Your task to perform on an android device: allow notifications from all sites in the chrome app Image 0: 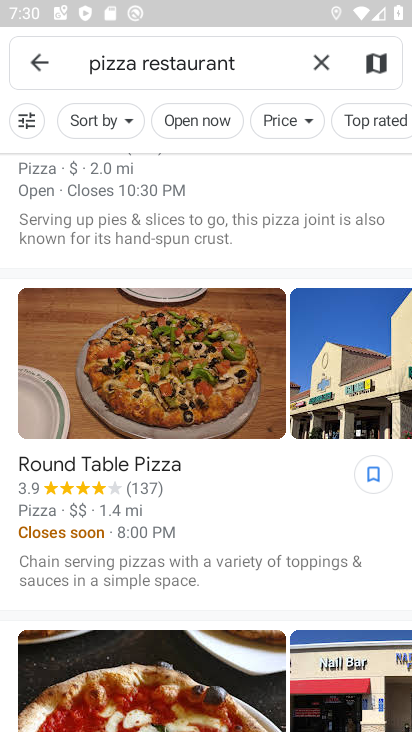
Step 0: press home button
Your task to perform on an android device: allow notifications from all sites in the chrome app Image 1: 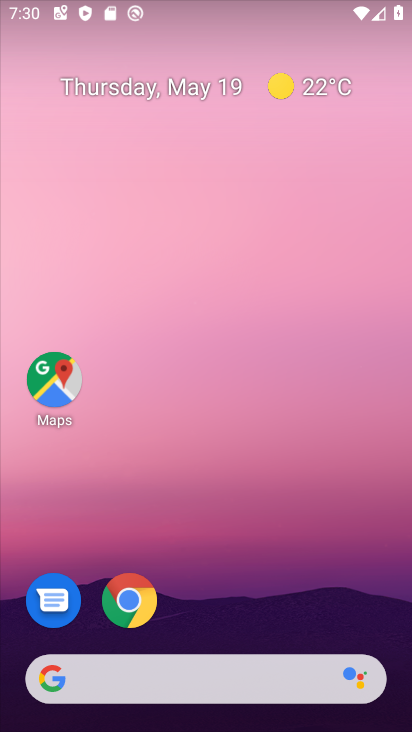
Step 1: drag from (393, 595) to (326, 146)
Your task to perform on an android device: allow notifications from all sites in the chrome app Image 2: 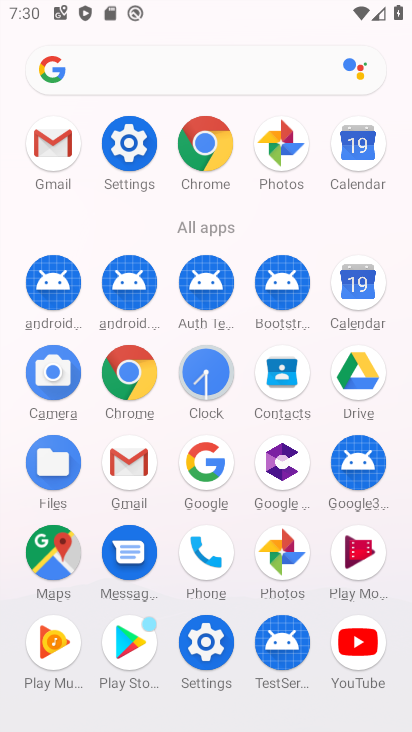
Step 2: click (138, 138)
Your task to perform on an android device: allow notifications from all sites in the chrome app Image 3: 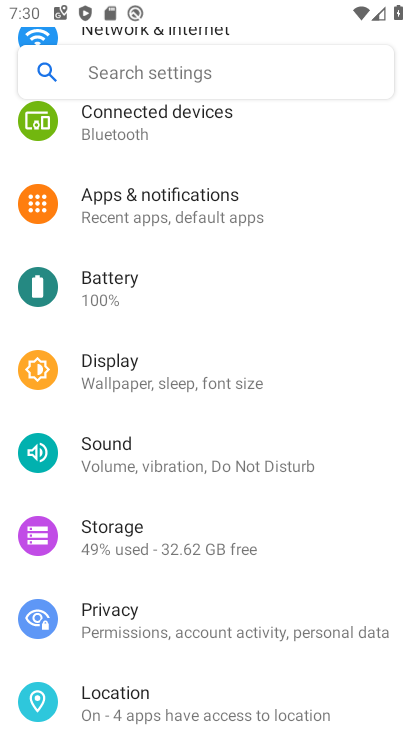
Step 3: press home button
Your task to perform on an android device: allow notifications from all sites in the chrome app Image 4: 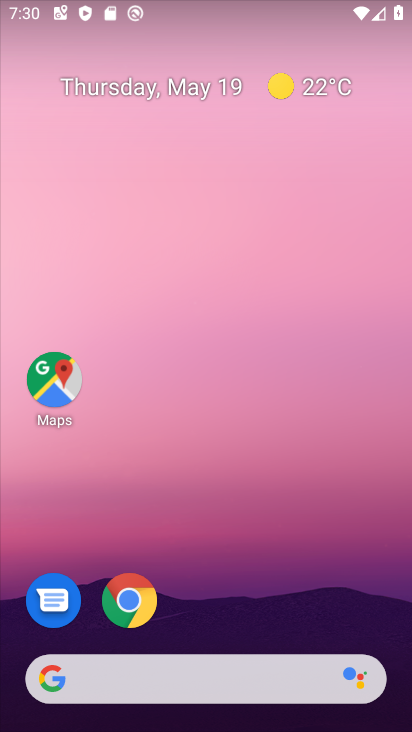
Step 4: drag from (330, 599) to (301, 187)
Your task to perform on an android device: allow notifications from all sites in the chrome app Image 5: 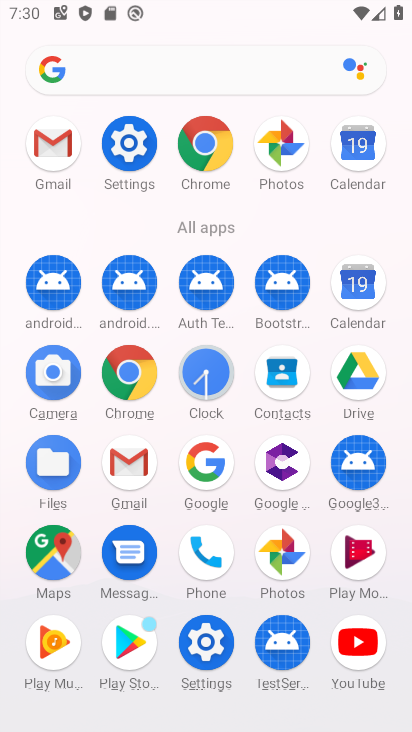
Step 5: click (136, 391)
Your task to perform on an android device: allow notifications from all sites in the chrome app Image 6: 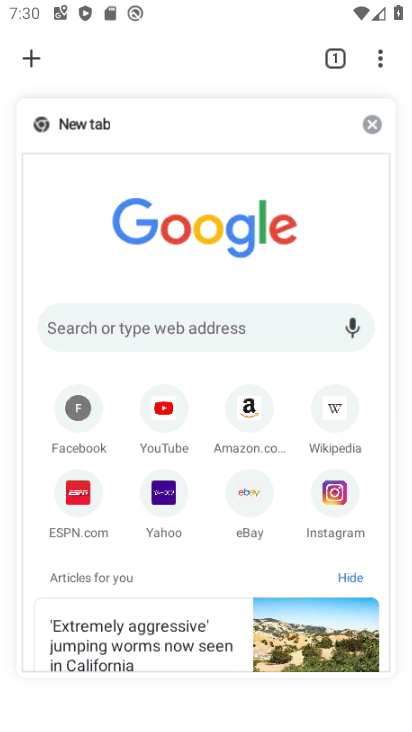
Step 6: drag from (381, 69) to (223, 217)
Your task to perform on an android device: allow notifications from all sites in the chrome app Image 7: 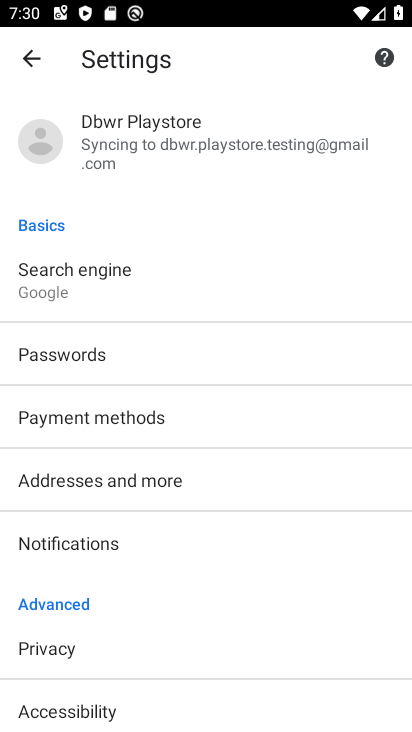
Step 7: drag from (293, 530) to (298, 239)
Your task to perform on an android device: allow notifications from all sites in the chrome app Image 8: 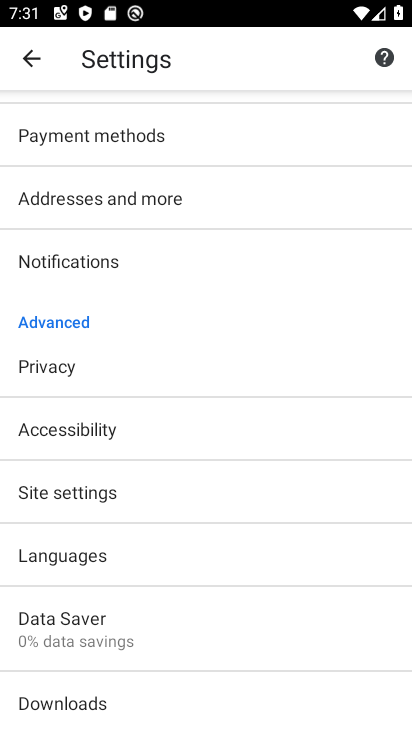
Step 8: click (167, 484)
Your task to perform on an android device: allow notifications from all sites in the chrome app Image 9: 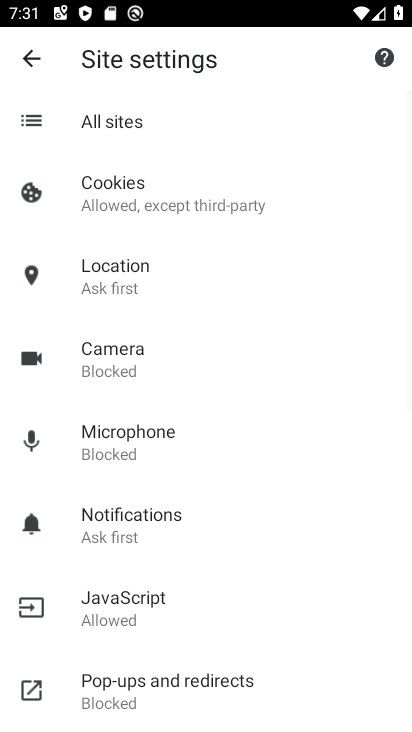
Step 9: click (197, 122)
Your task to perform on an android device: allow notifications from all sites in the chrome app Image 10: 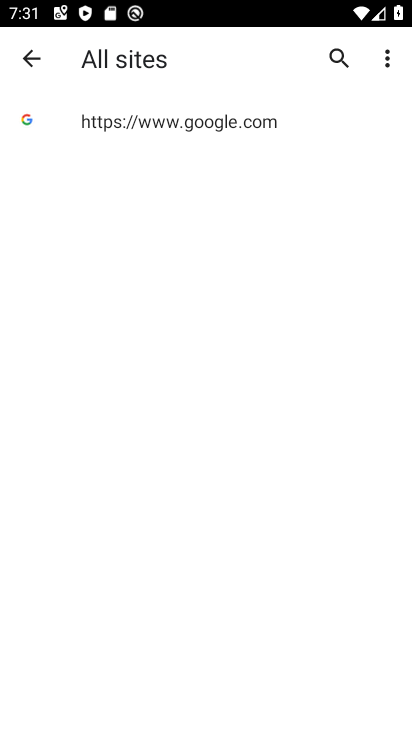
Step 10: click (317, 129)
Your task to perform on an android device: allow notifications from all sites in the chrome app Image 11: 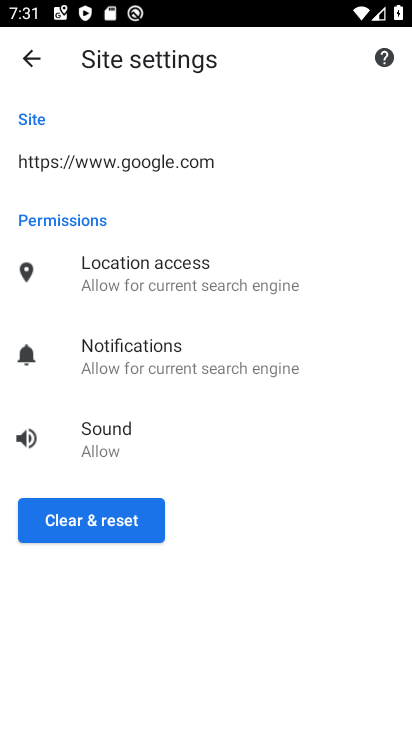
Step 11: task complete